Your task to perform on an android device: delete location history Image 0: 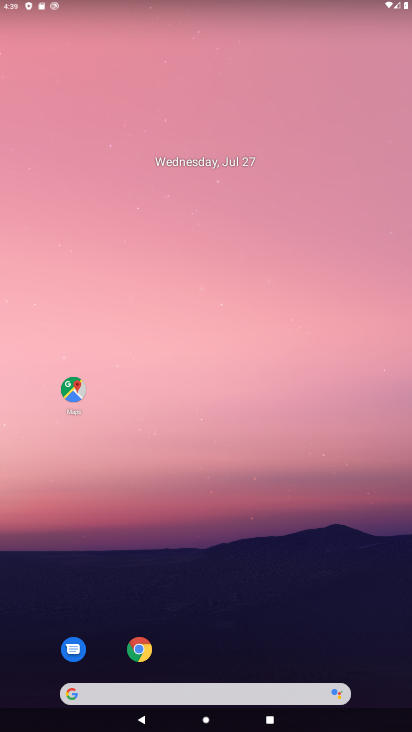
Step 0: click (74, 390)
Your task to perform on an android device: delete location history Image 1: 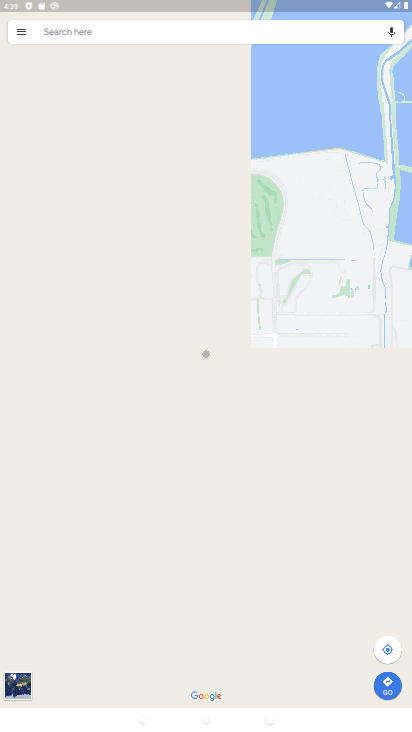
Step 1: click (23, 32)
Your task to perform on an android device: delete location history Image 2: 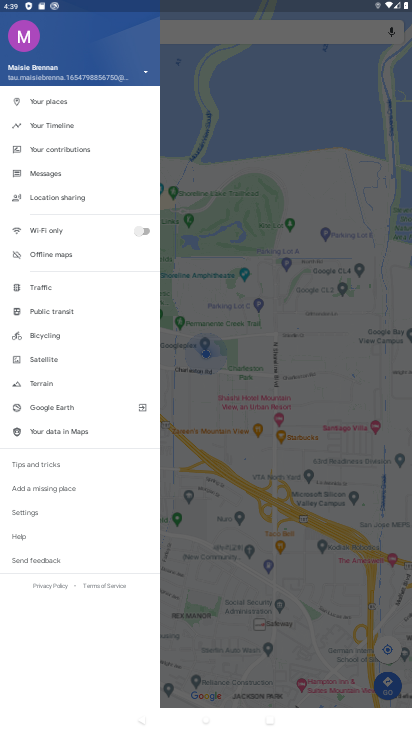
Step 2: click (31, 513)
Your task to perform on an android device: delete location history Image 3: 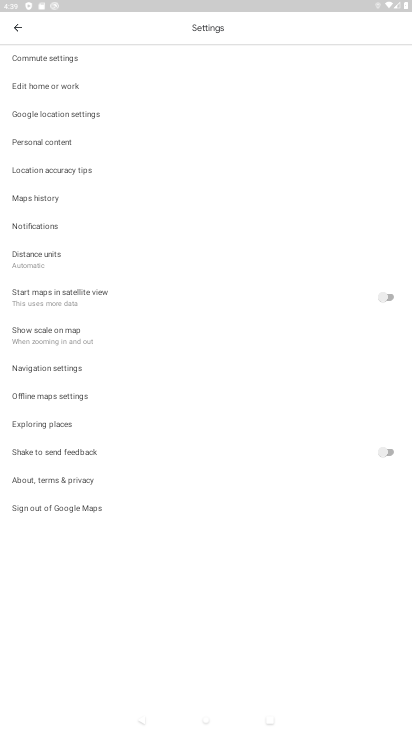
Step 3: click (41, 145)
Your task to perform on an android device: delete location history Image 4: 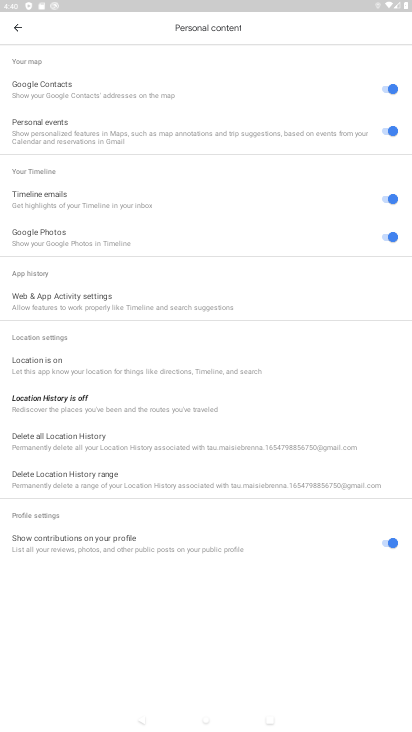
Step 4: click (75, 440)
Your task to perform on an android device: delete location history Image 5: 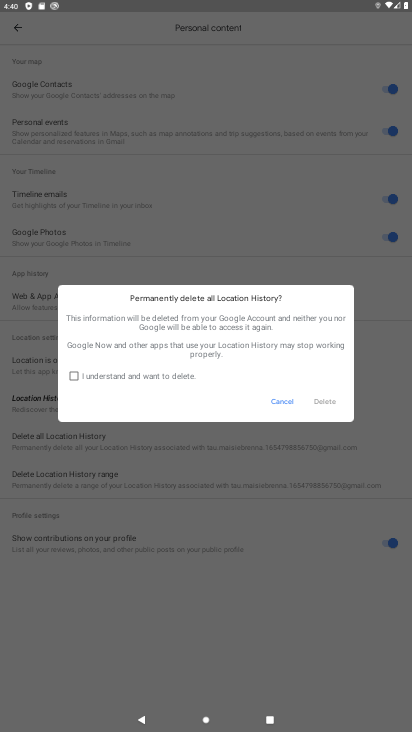
Step 5: click (75, 376)
Your task to perform on an android device: delete location history Image 6: 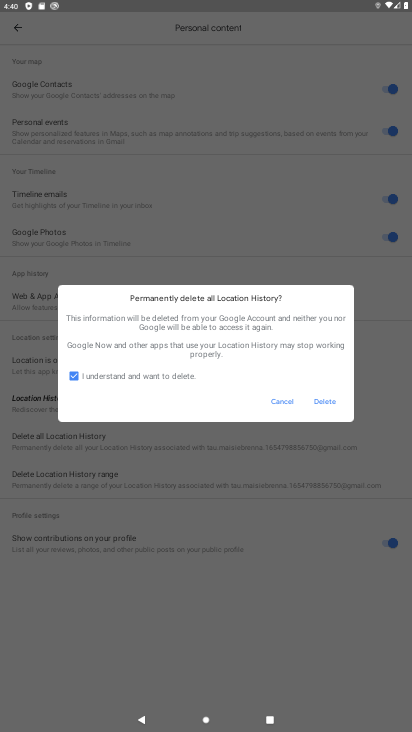
Step 6: click (328, 398)
Your task to perform on an android device: delete location history Image 7: 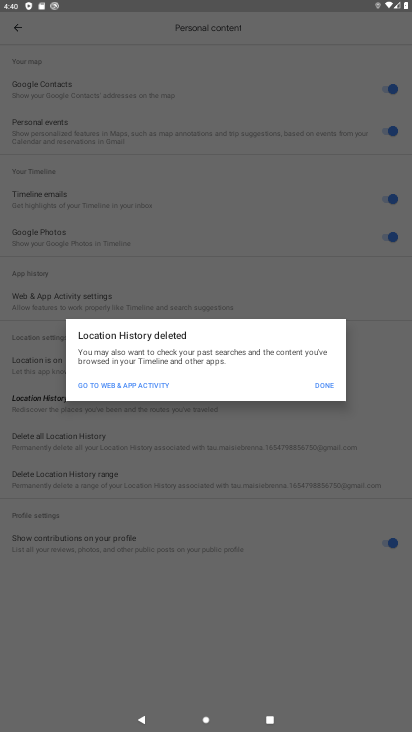
Step 7: click (327, 384)
Your task to perform on an android device: delete location history Image 8: 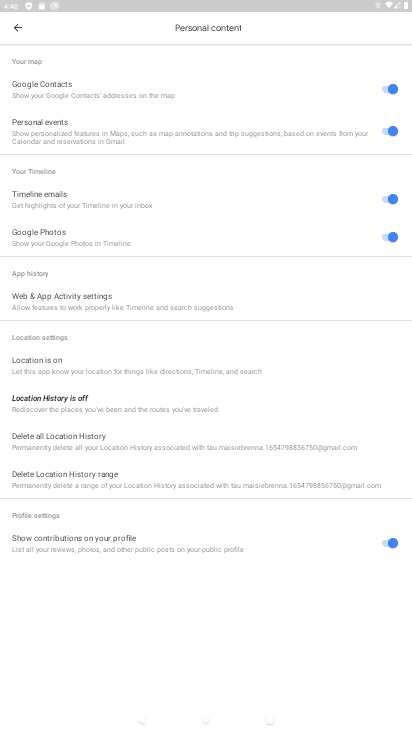
Step 8: task complete